Your task to perform on an android device: Open Amazon Image 0: 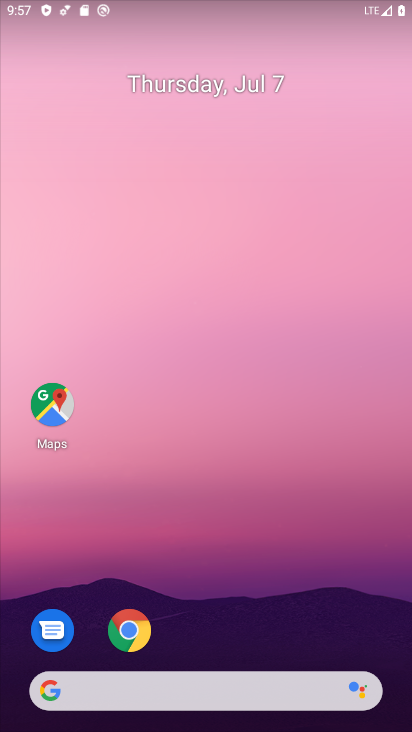
Step 0: click (130, 625)
Your task to perform on an android device: Open Amazon Image 1: 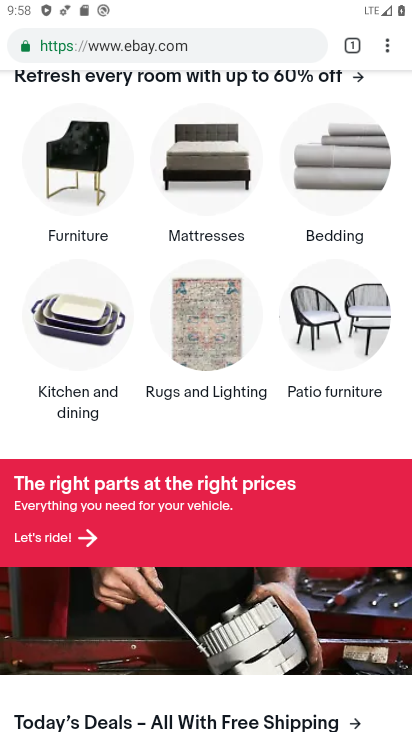
Step 1: click (355, 41)
Your task to perform on an android device: Open Amazon Image 2: 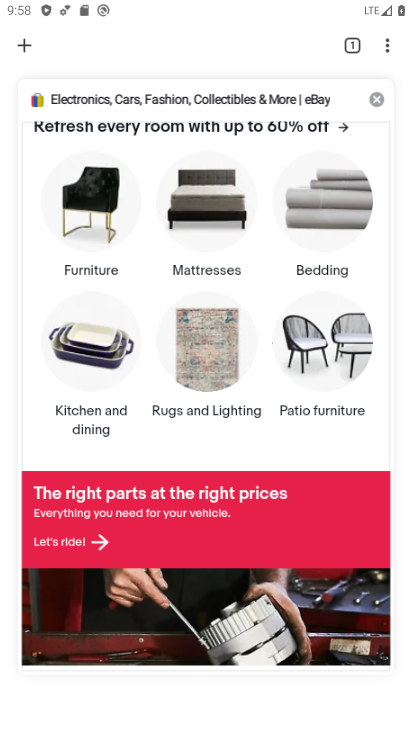
Step 2: click (27, 46)
Your task to perform on an android device: Open Amazon Image 3: 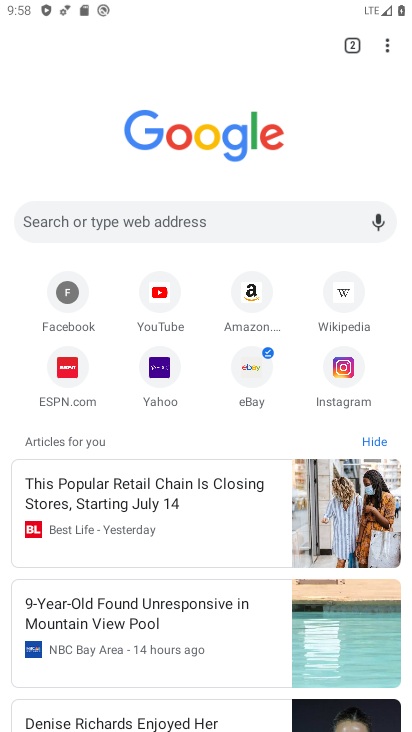
Step 3: click (256, 288)
Your task to perform on an android device: Open Amazon Image 4: 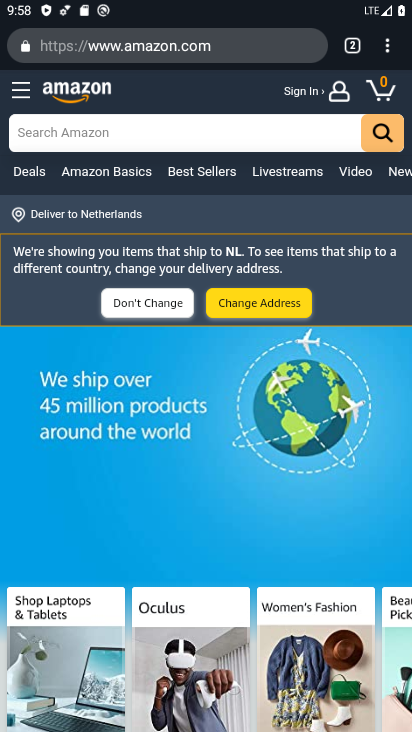
Step 4: task complete